Your task to perform on an android device: Google the capital of Brazil Image 0: 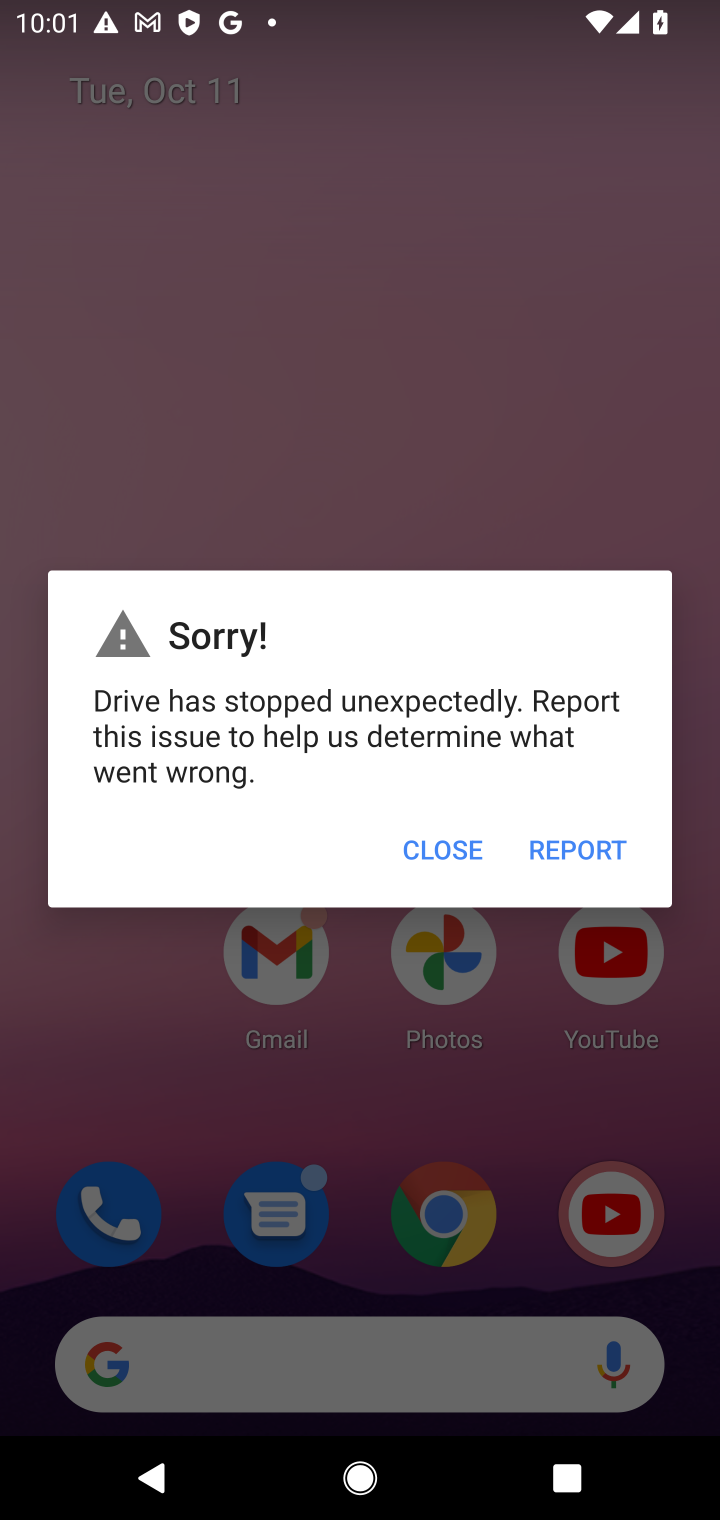
Step 0: press home button
Your task to perform on an android device: Google the capital of Brazil Image 1: 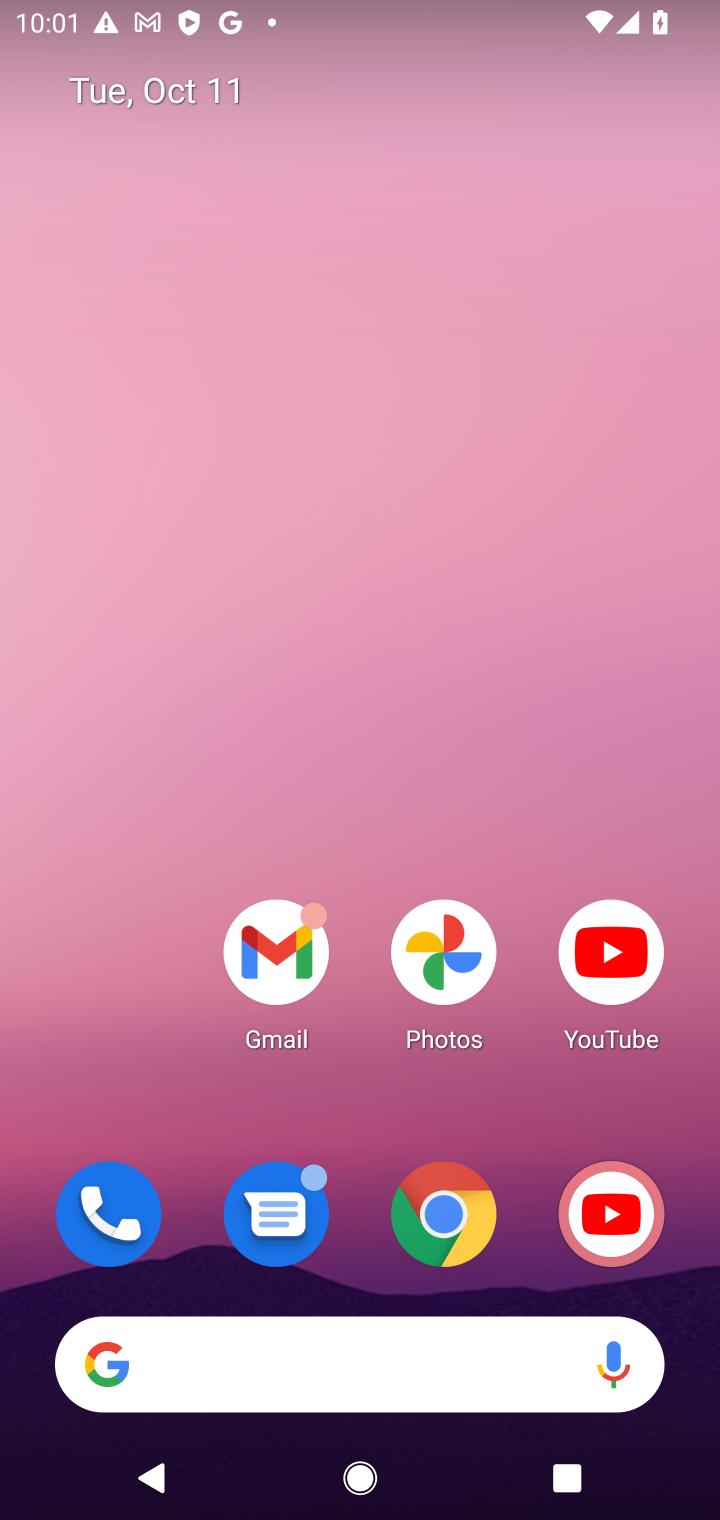
Step 1: drag from (345, 820) to (363, 202)
Your task to perform on an android device: Google the capital of Brazil Image 2: 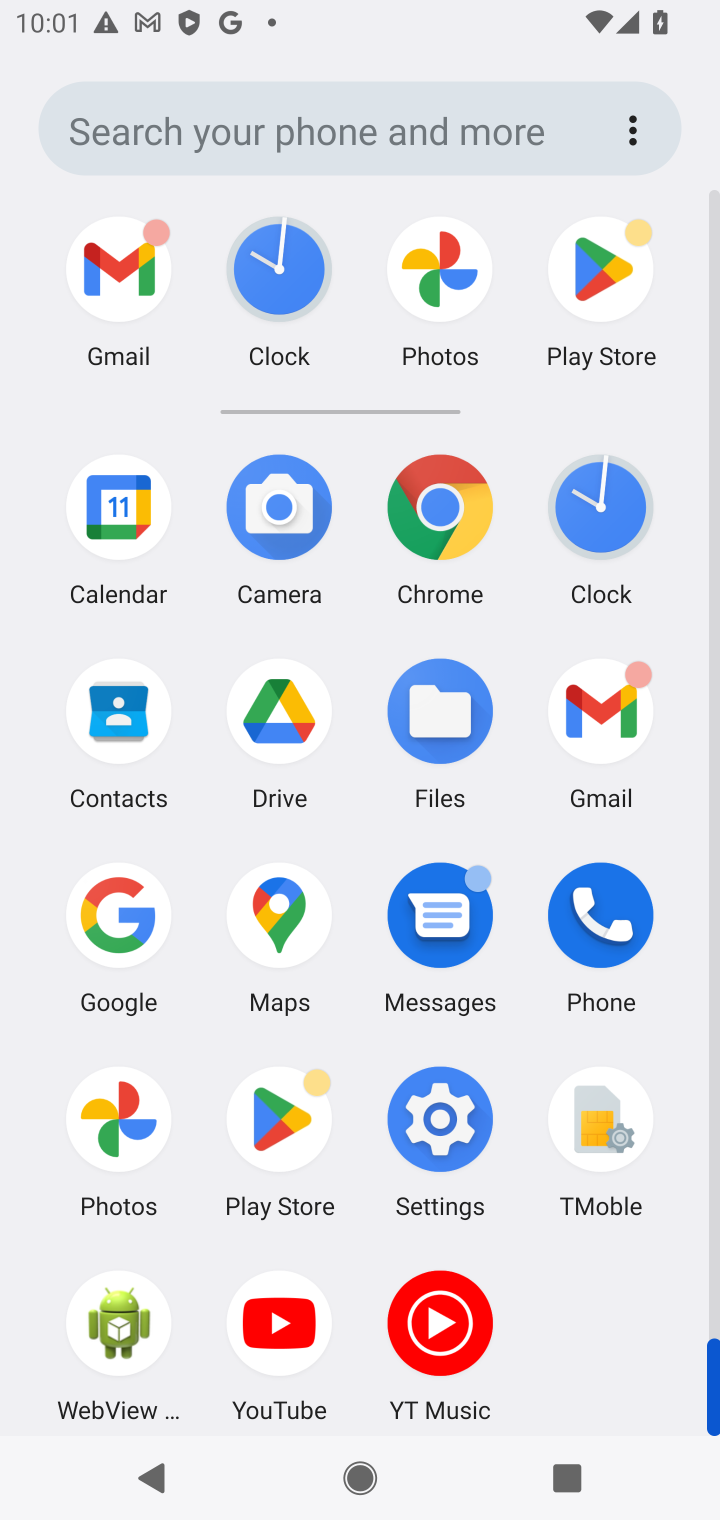
Step 2: click (101, 903)
Your task to perform on an android device: Google the capital of Brazil Image 3: 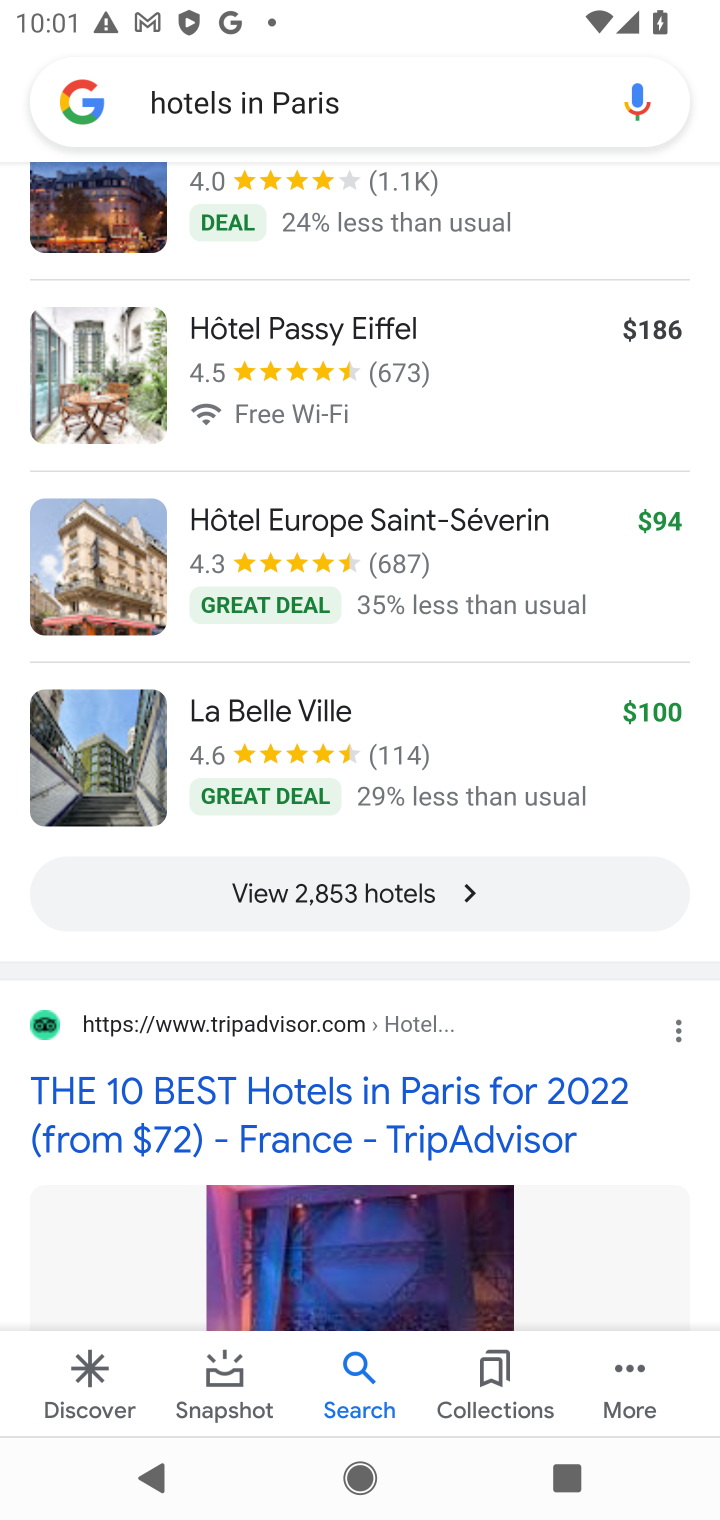
Step 3: click (317, 105)
Your task to perform on an android device: Google the capital of Brazil Image 4: 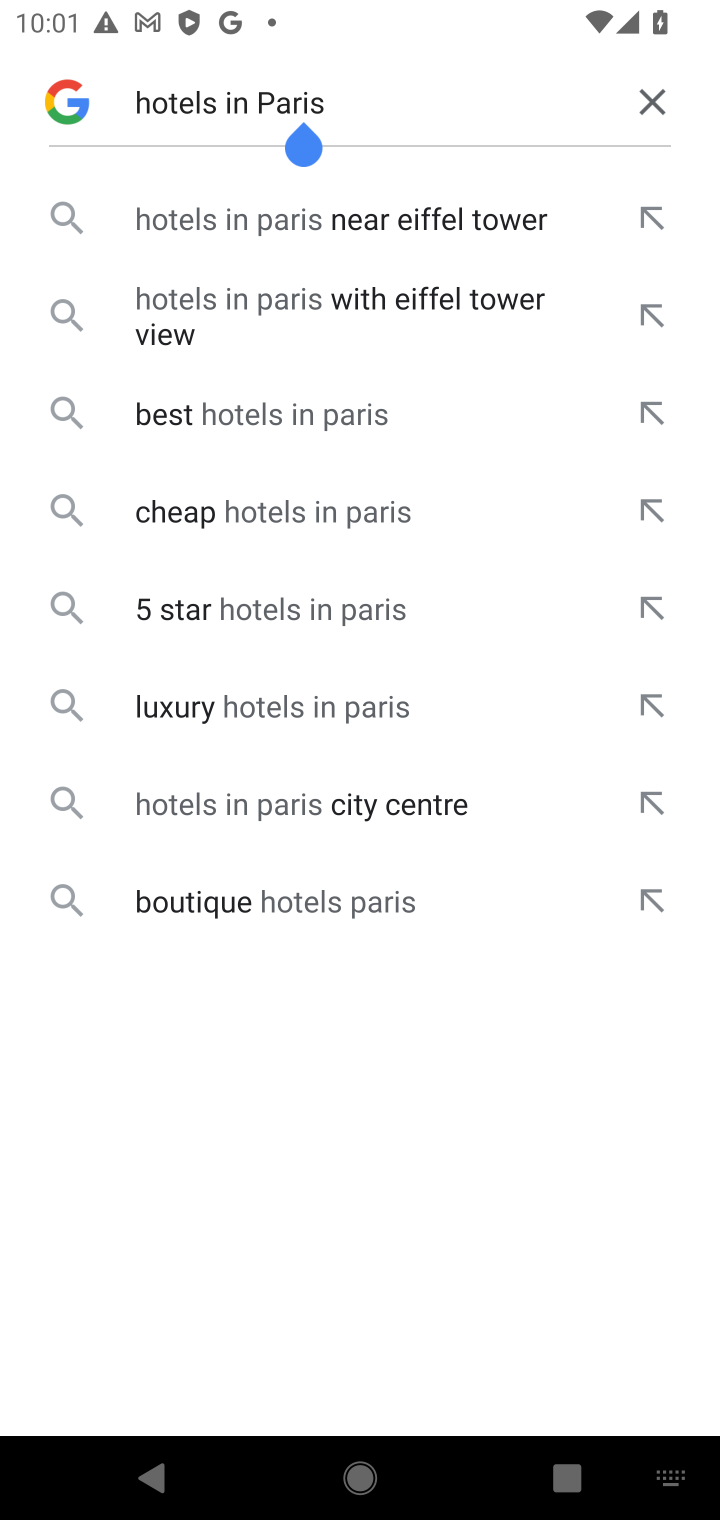
Step 4: click (656, 89)
Your task to perform on an android device: Google the capital of Brazil Image 5: 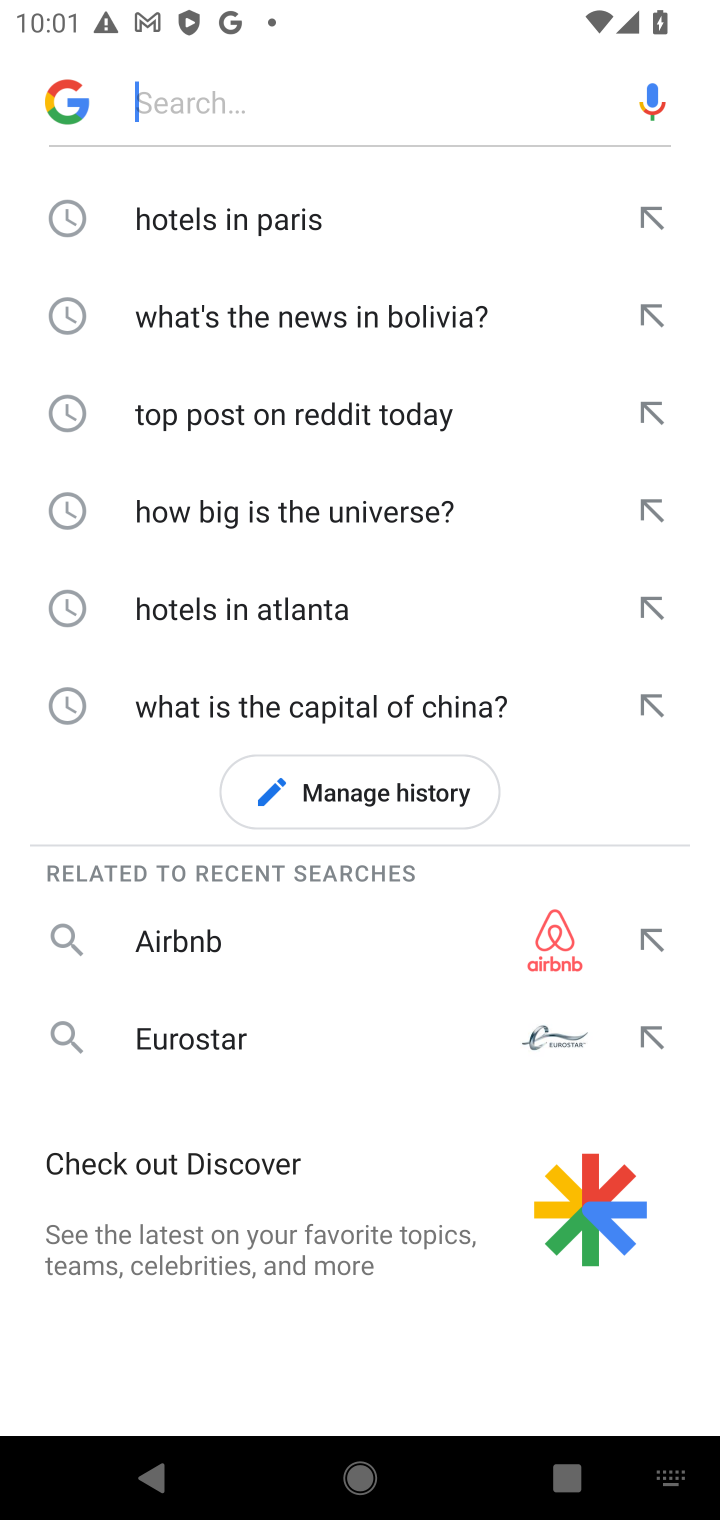
Step 5: type "the capital of  Brazil"
Your task to perform on an android device: Google the capital of Brazil Image 6: 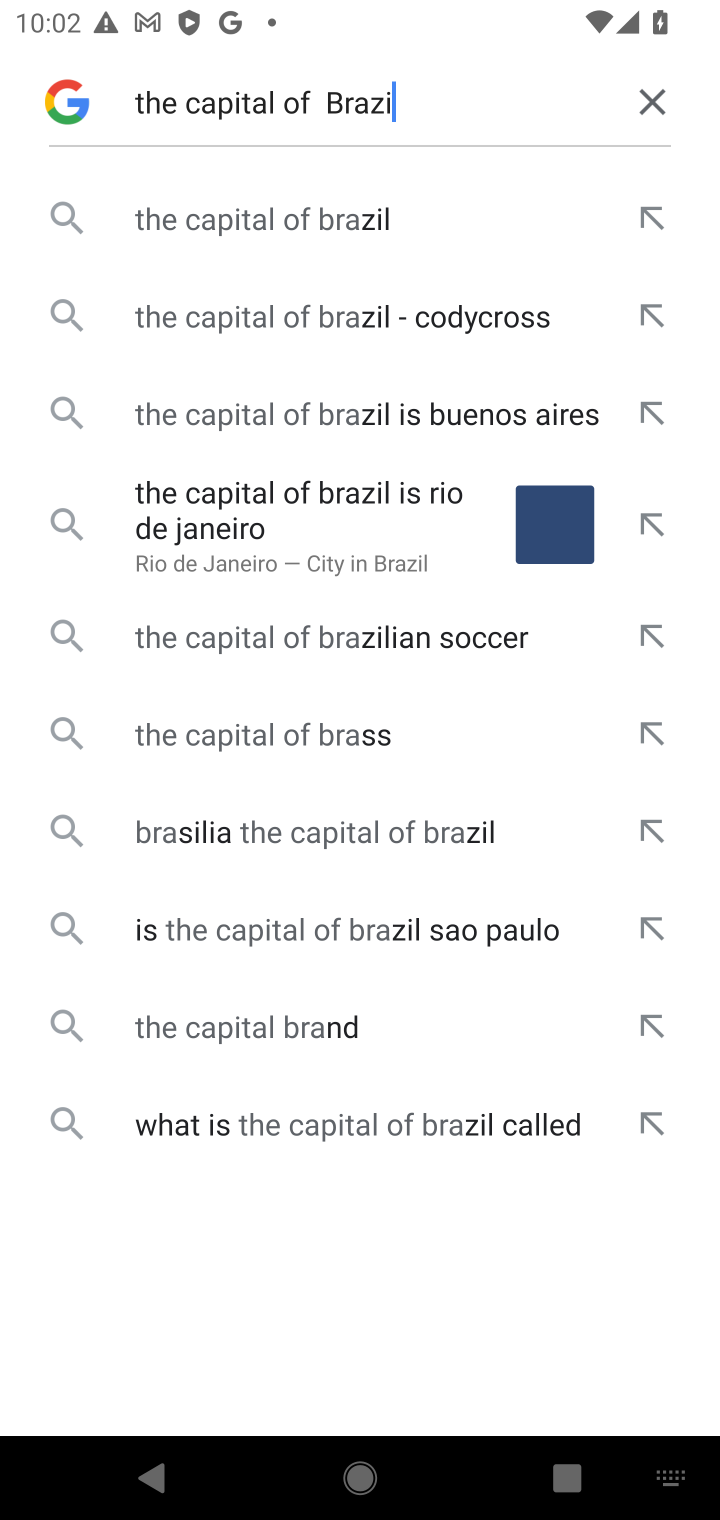
Step 6: press enter
Your task to perform on an android device: Google the capital of Brazil Image 7: 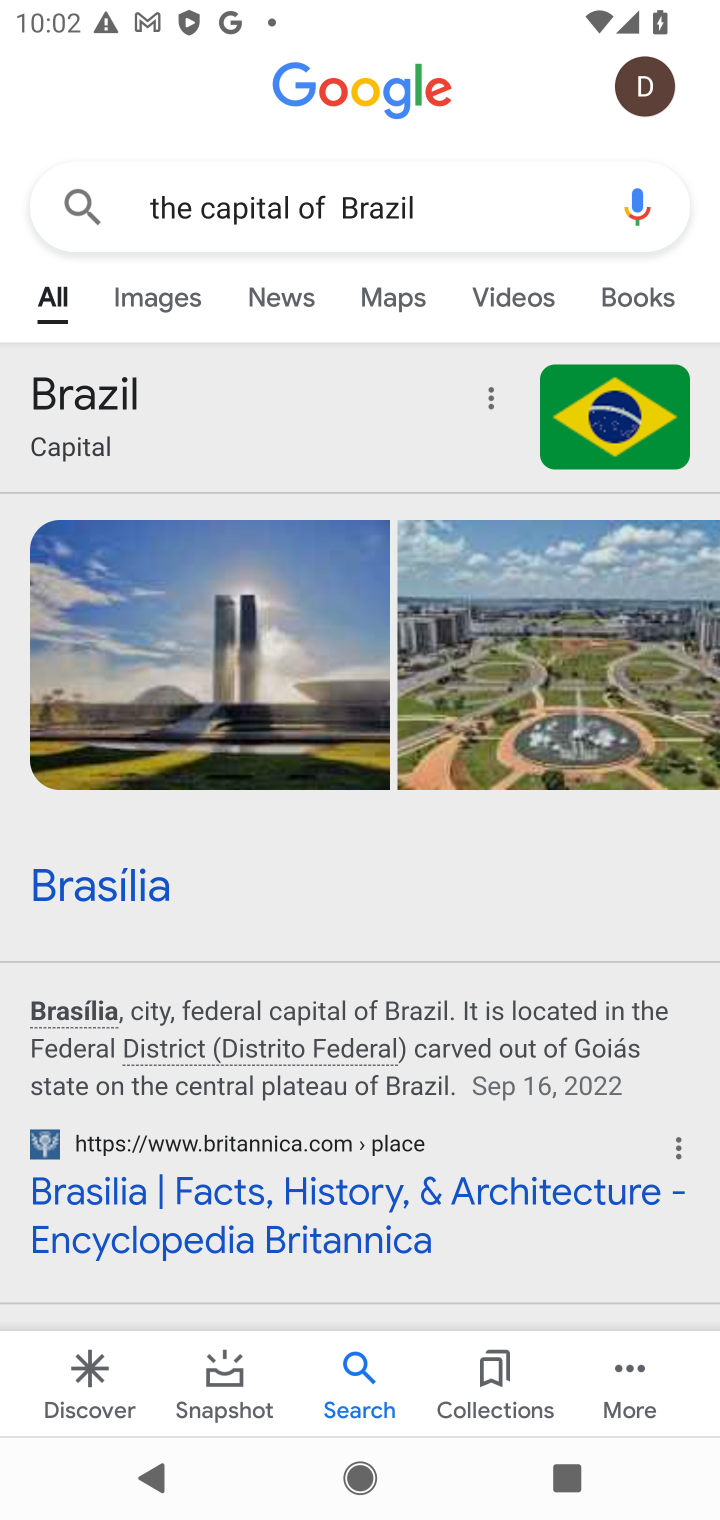
Step 7: task complete